Your task to perform on an android device: Search for seafood restaurants on Google Maps Image 0: 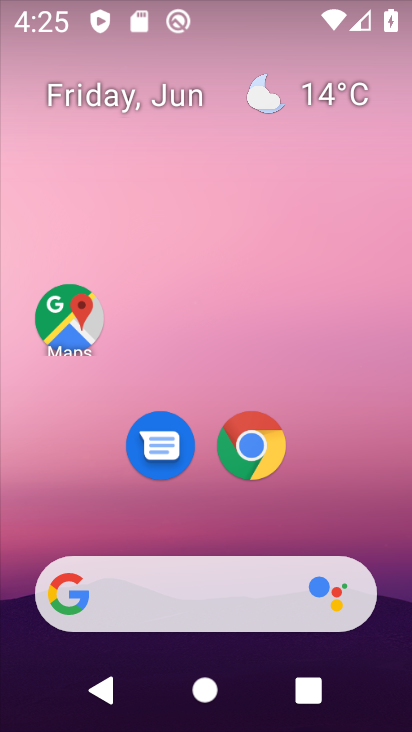
Step 0: click (69, 311)
Your task to perform on an android device: Search for seafood restaurants on Google Maps Image 1: 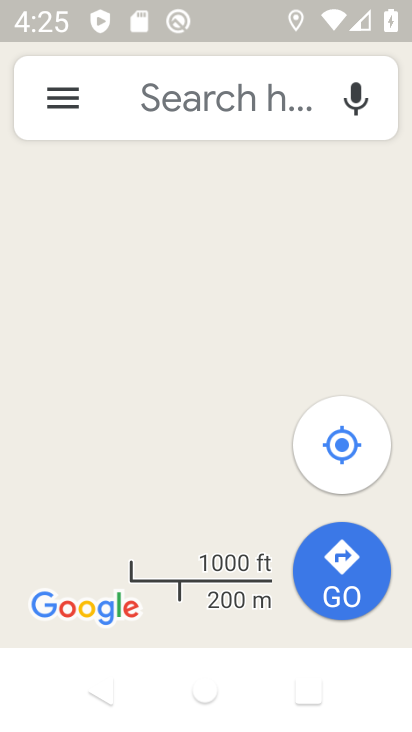
Step 1: click (209, 85)
Your task to perform on an android device: Search for seafood restaurants on Google Maps Image 2: 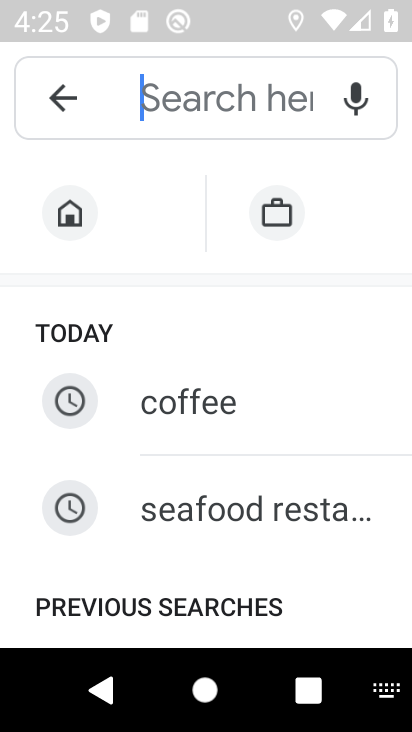
Step 2: task complete